Your task to perform on an android device: uninstall "Cash App" Image 0: 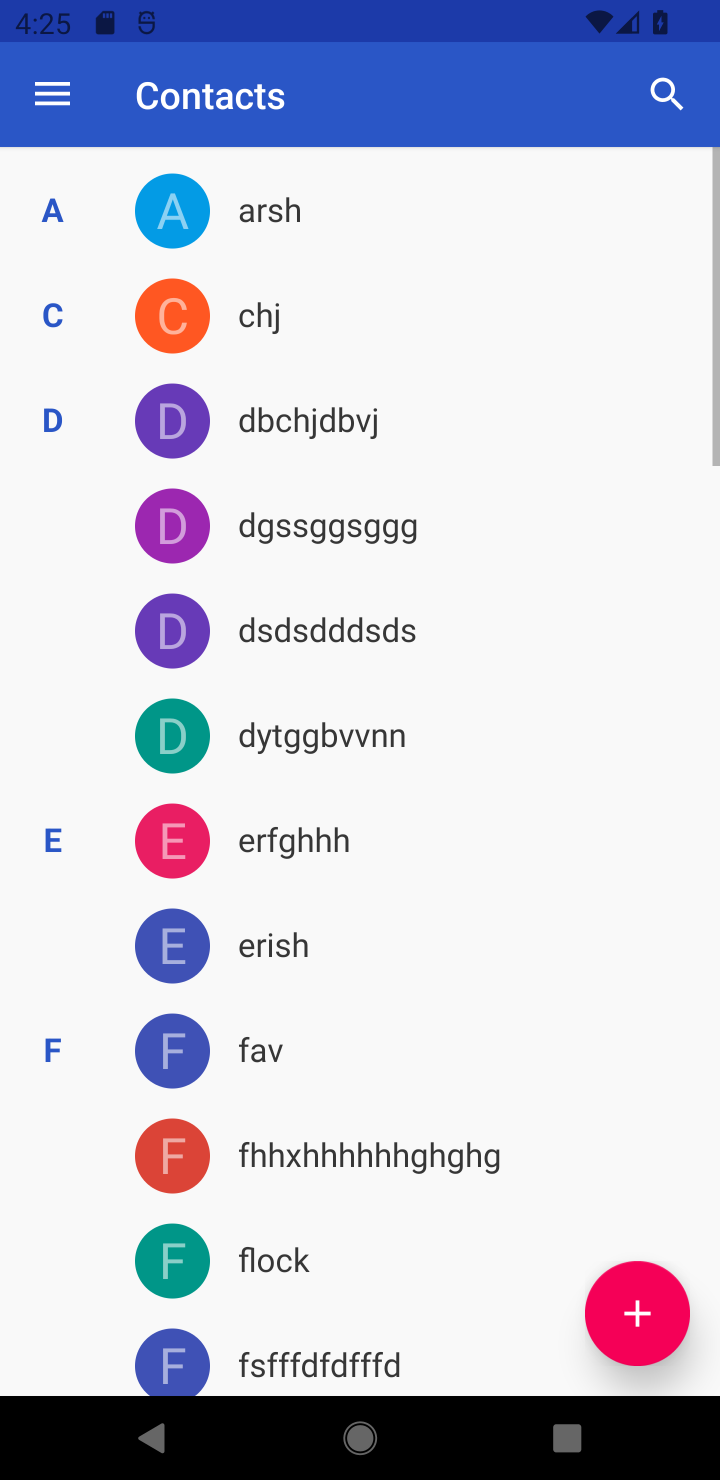
Step 0: press home button
Your task to perform on an android device: uninstall "Cash App" Image 1: 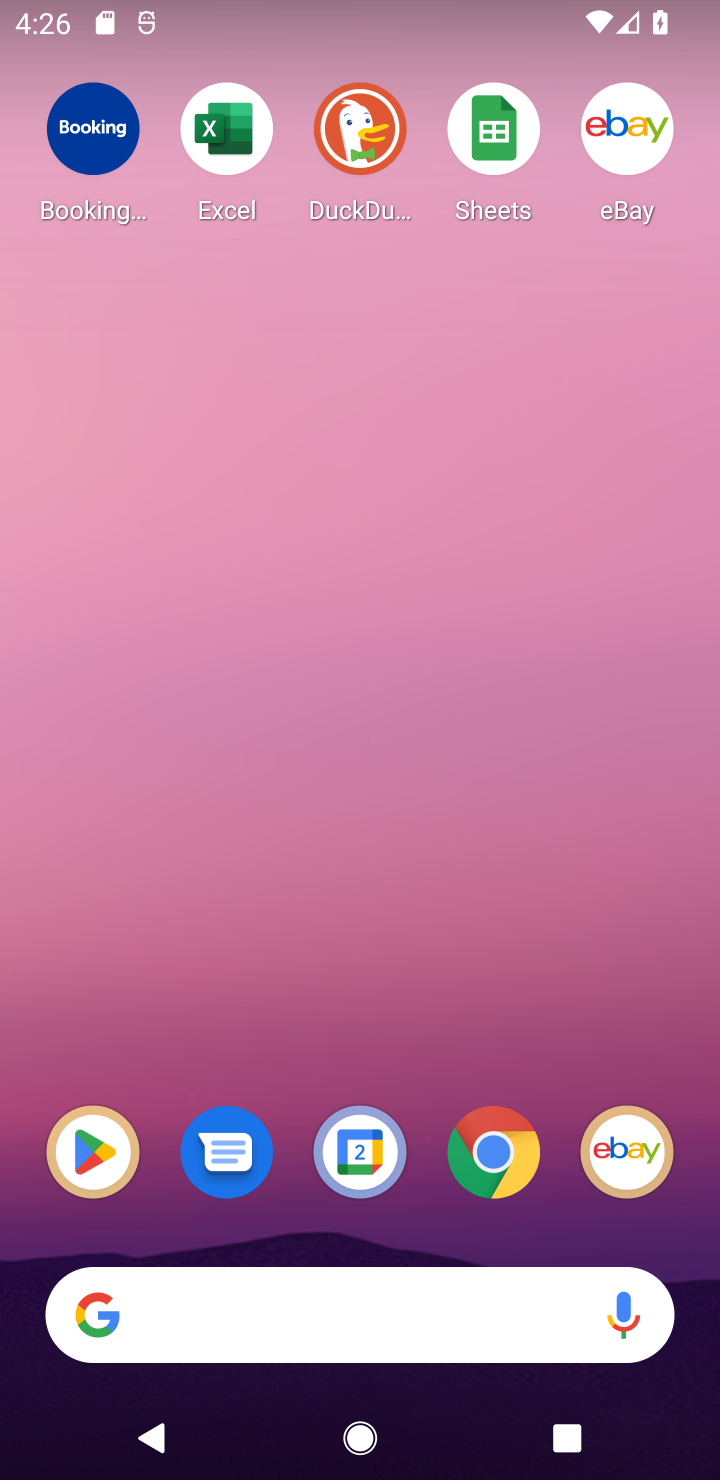
Step 1: click (93, 1153)
Your task to perform on an android device: uninstall "Cash App" Image 2: 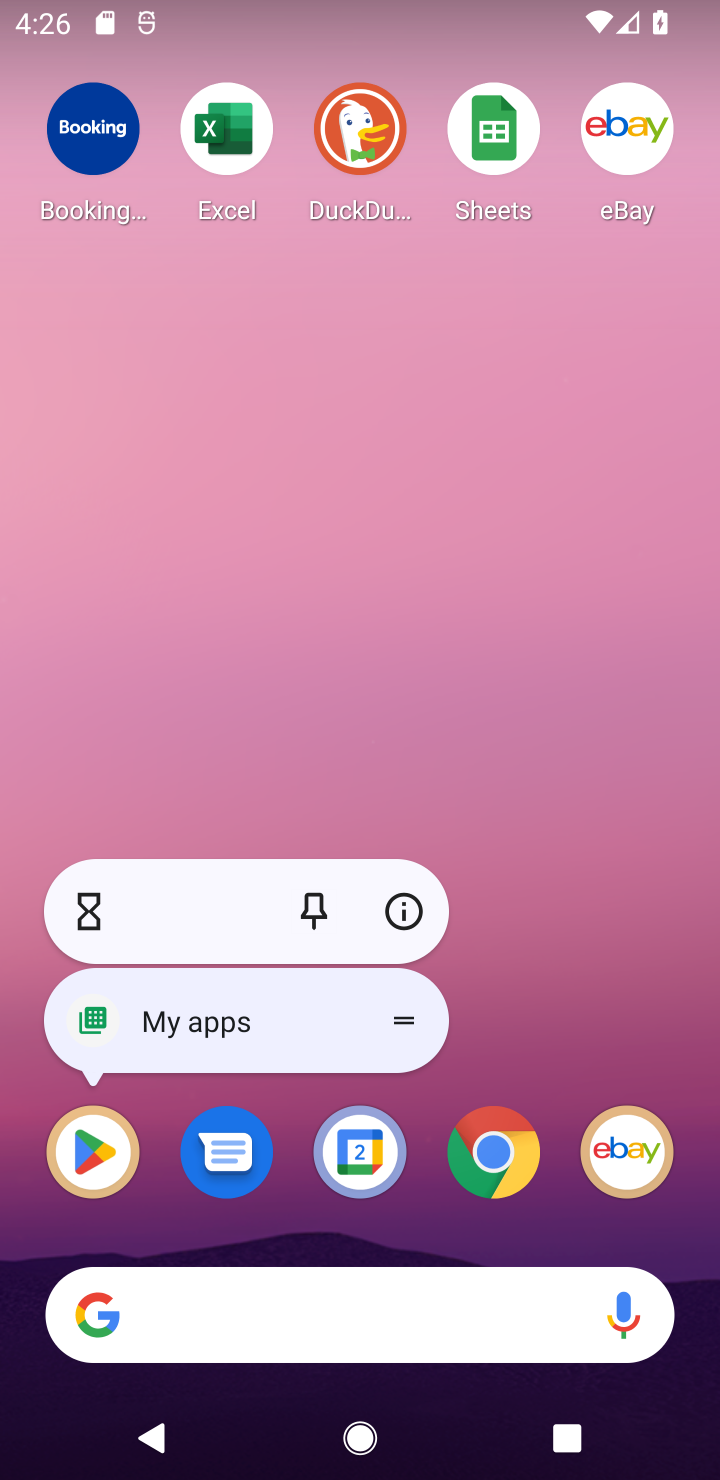
Step 2: click (94, 1153)
Your task to perform on an android device: uninstall "Cash App" Image 3: 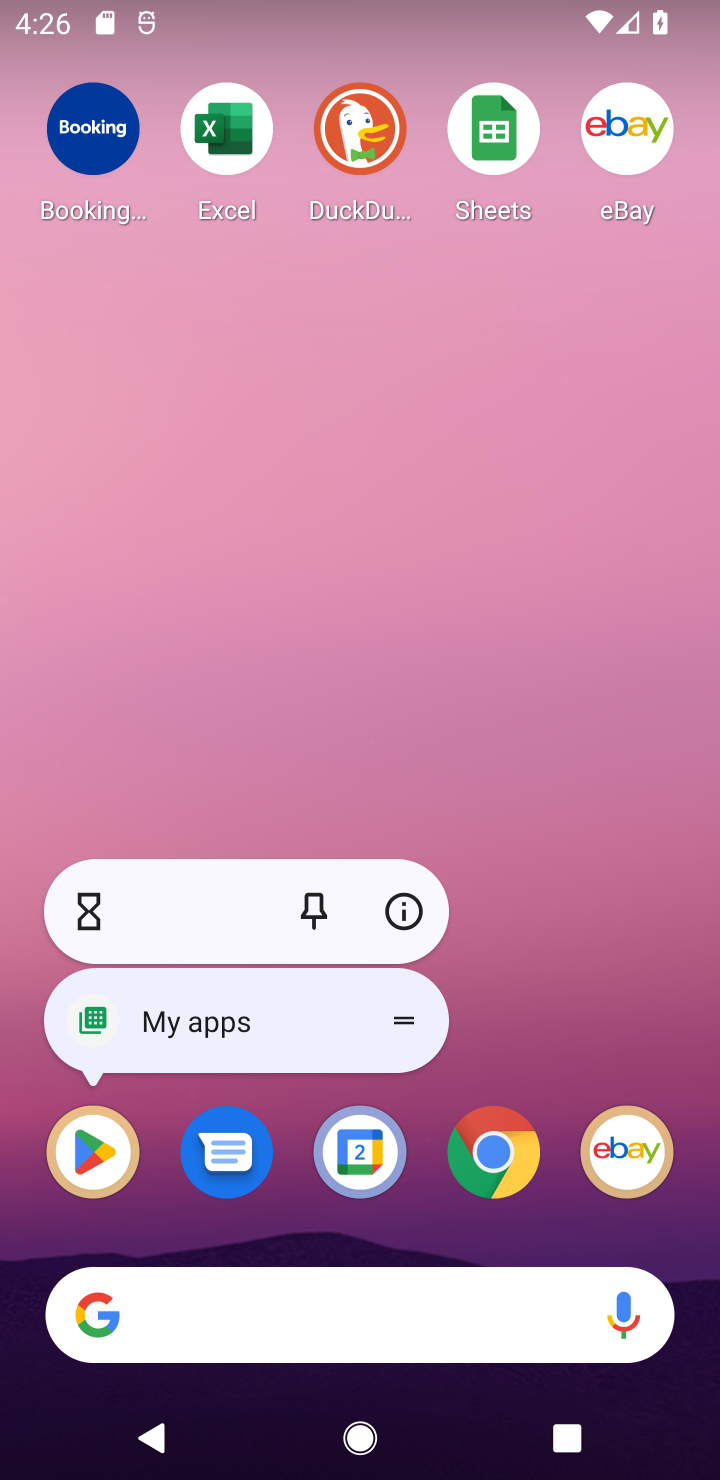
Step 3: click (94, 1153)
Your task to perform on an android device: uninstall "Cash App" Image 4: 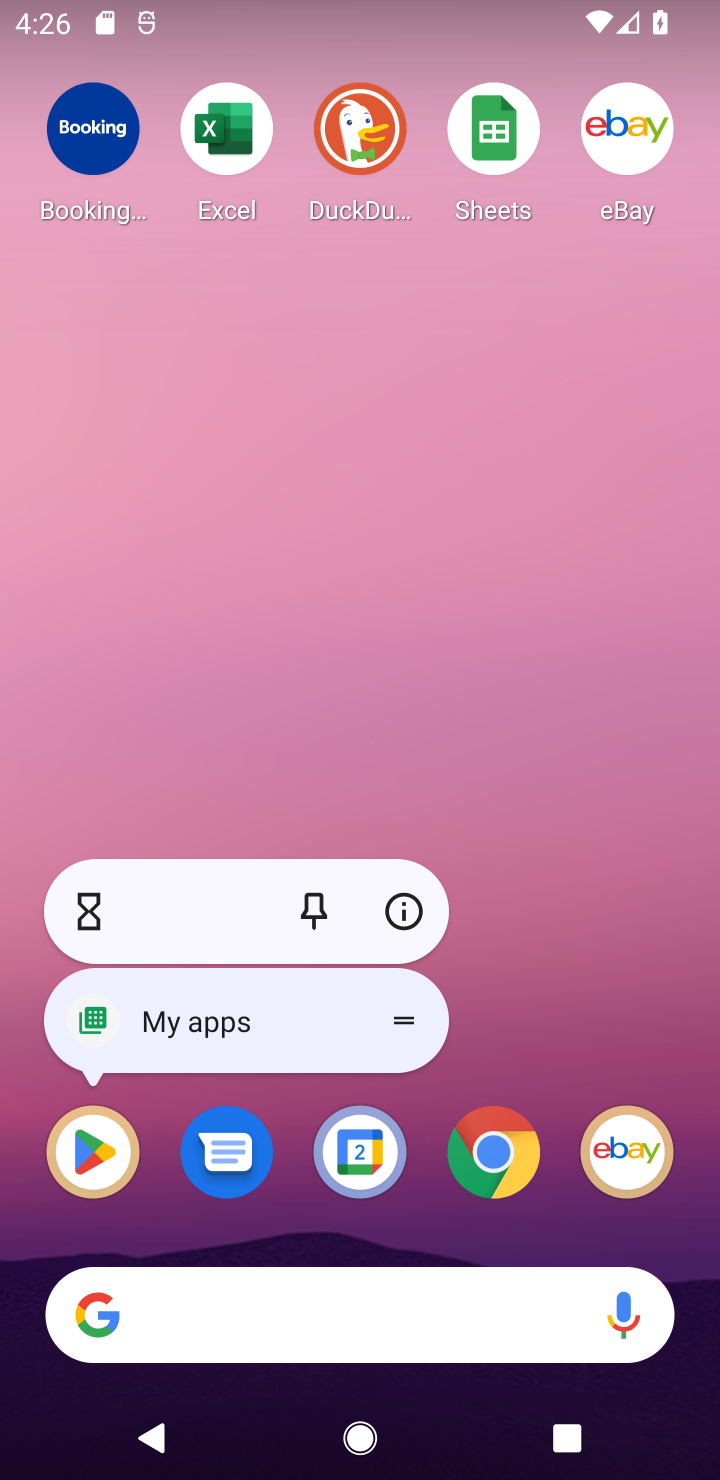
Step 4: click (96, 1154)
Your task to perform on an android device: uninstall "Cash App" Image 5: 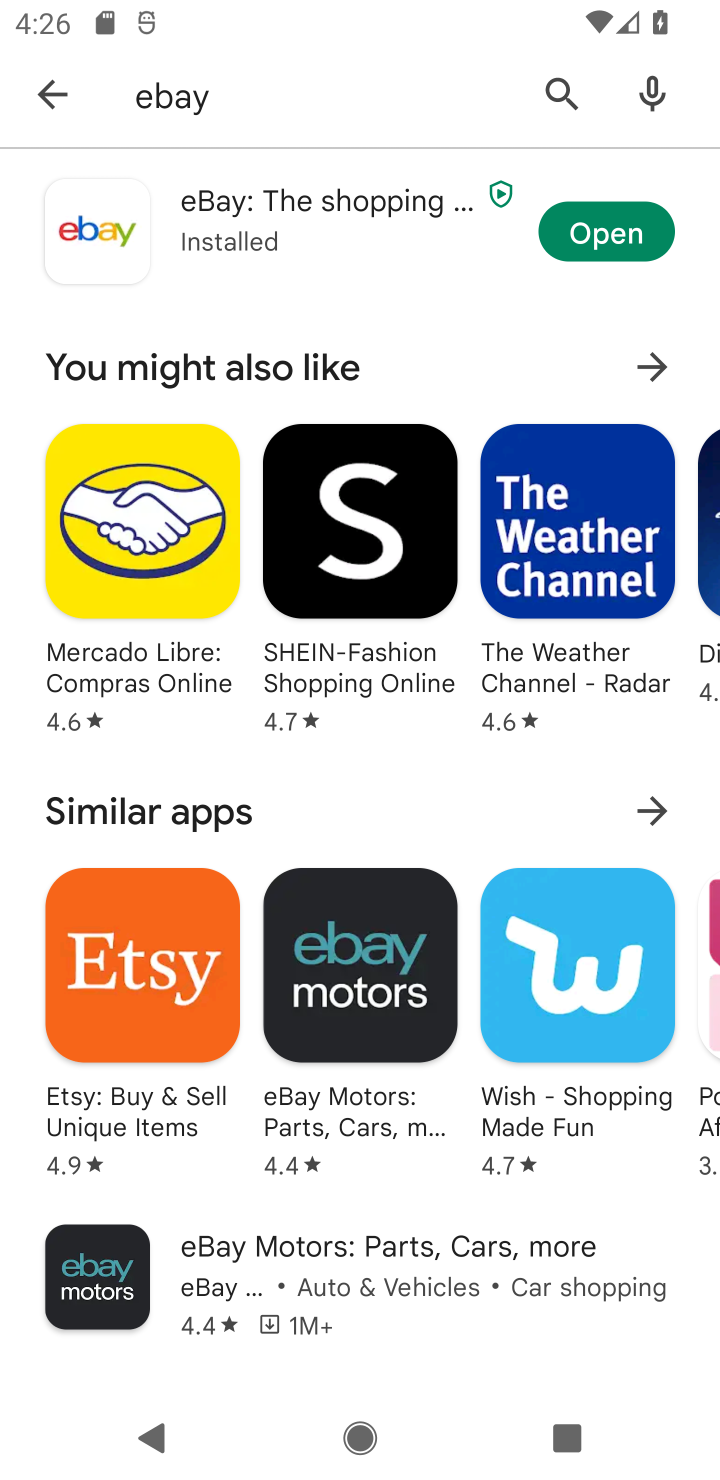
Step 5: click (28, 70)
Your task to perform on an android device: uninstall "Cash App" Image 6: 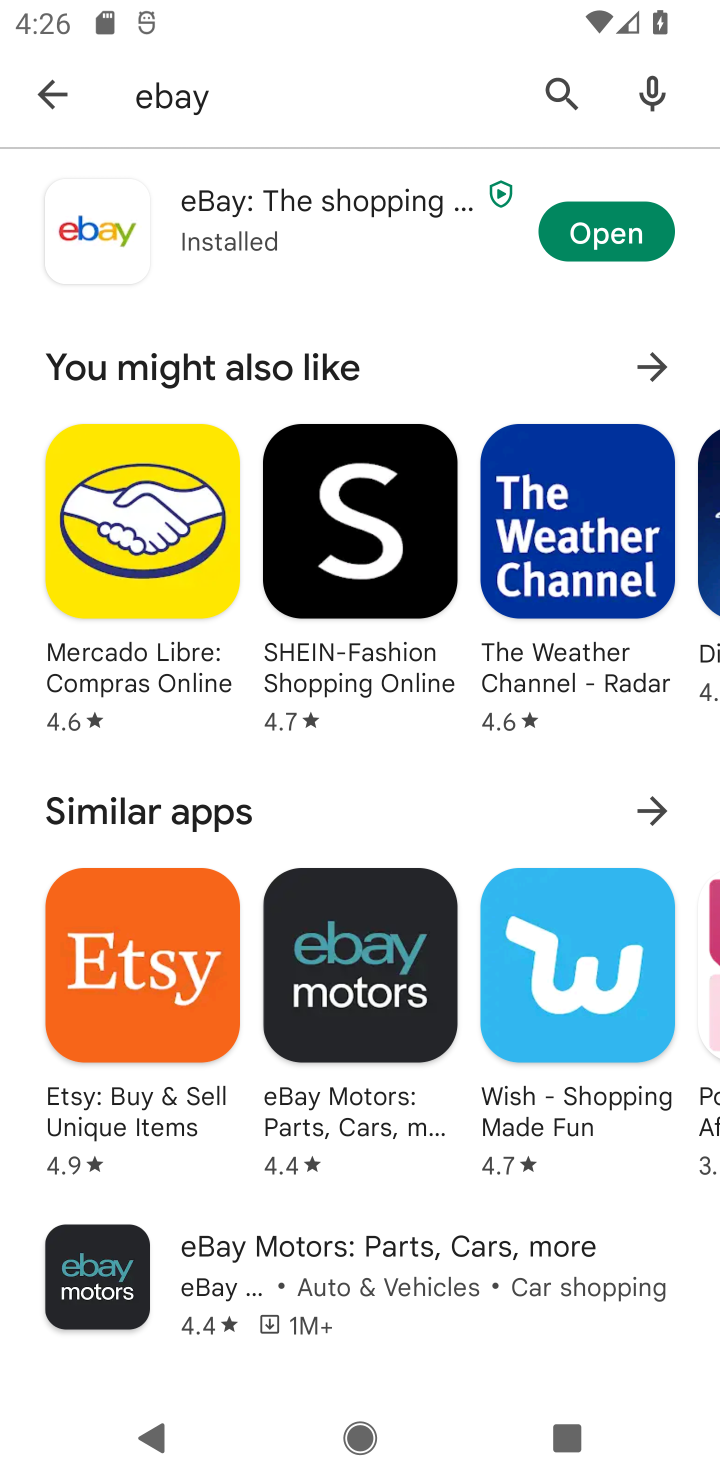
Step 6: click (37, 93)
Your task to perform on an android device: uninstall "Cash App" Image 7: 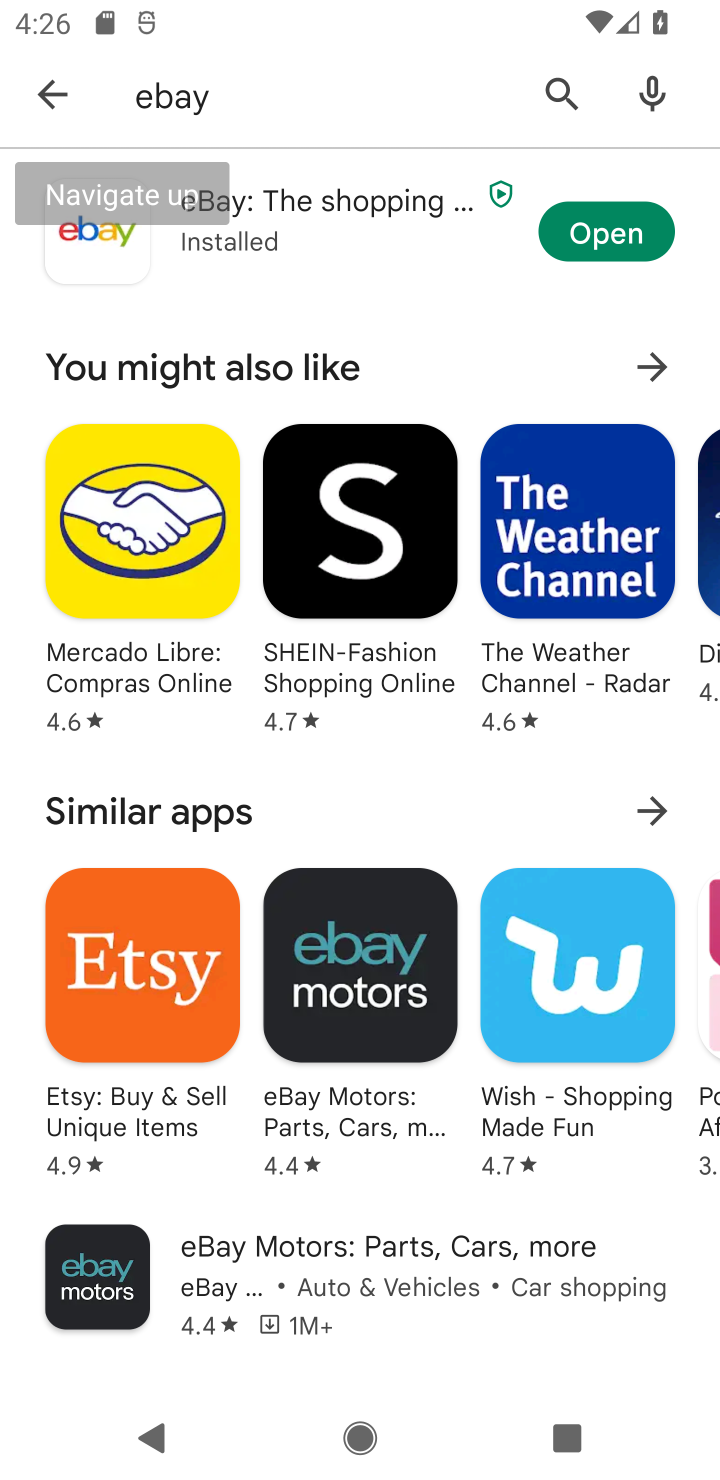
Step 7: click (37, 93)
Your task to perform on an android device: uninstall "Cash App" Image 8: 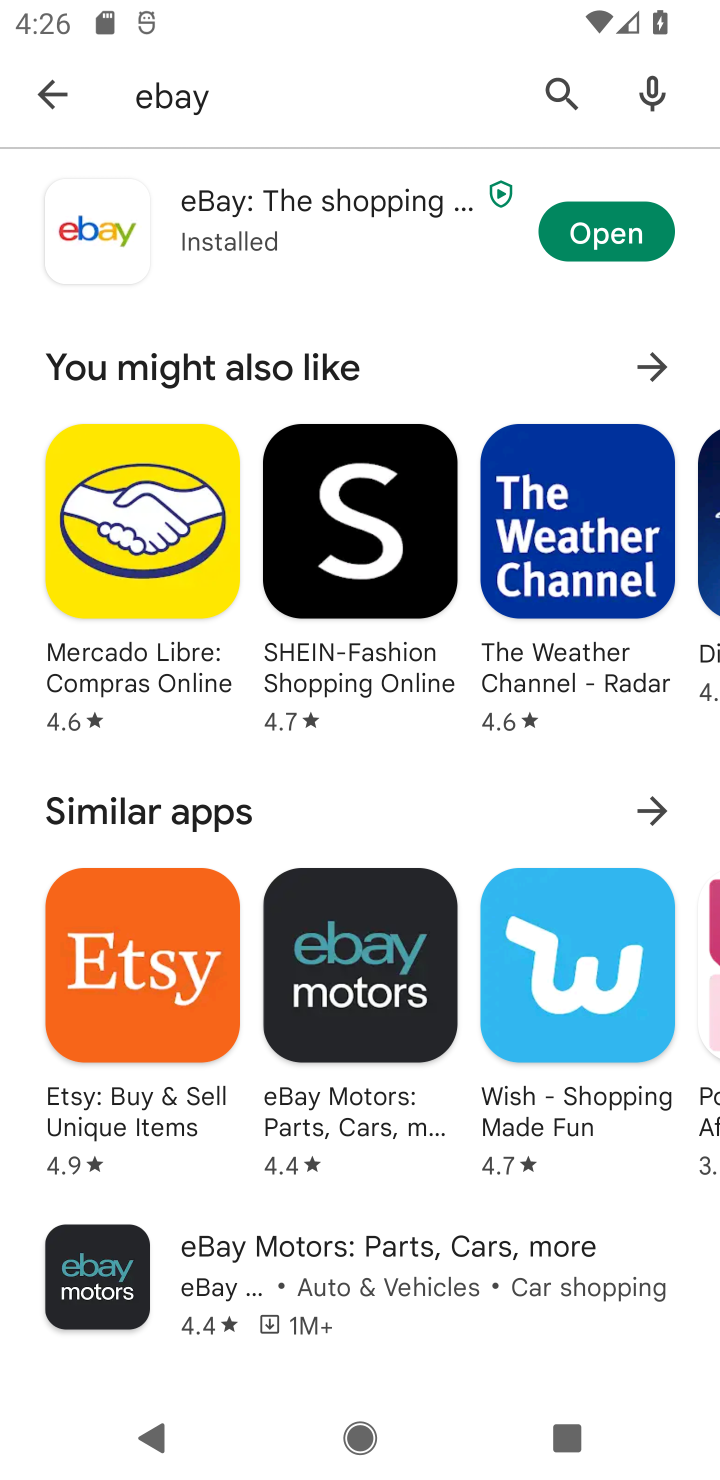
Step 8: click (37, 93)
Your task to perform on an android device: uninstall "Cash App" Image 9: 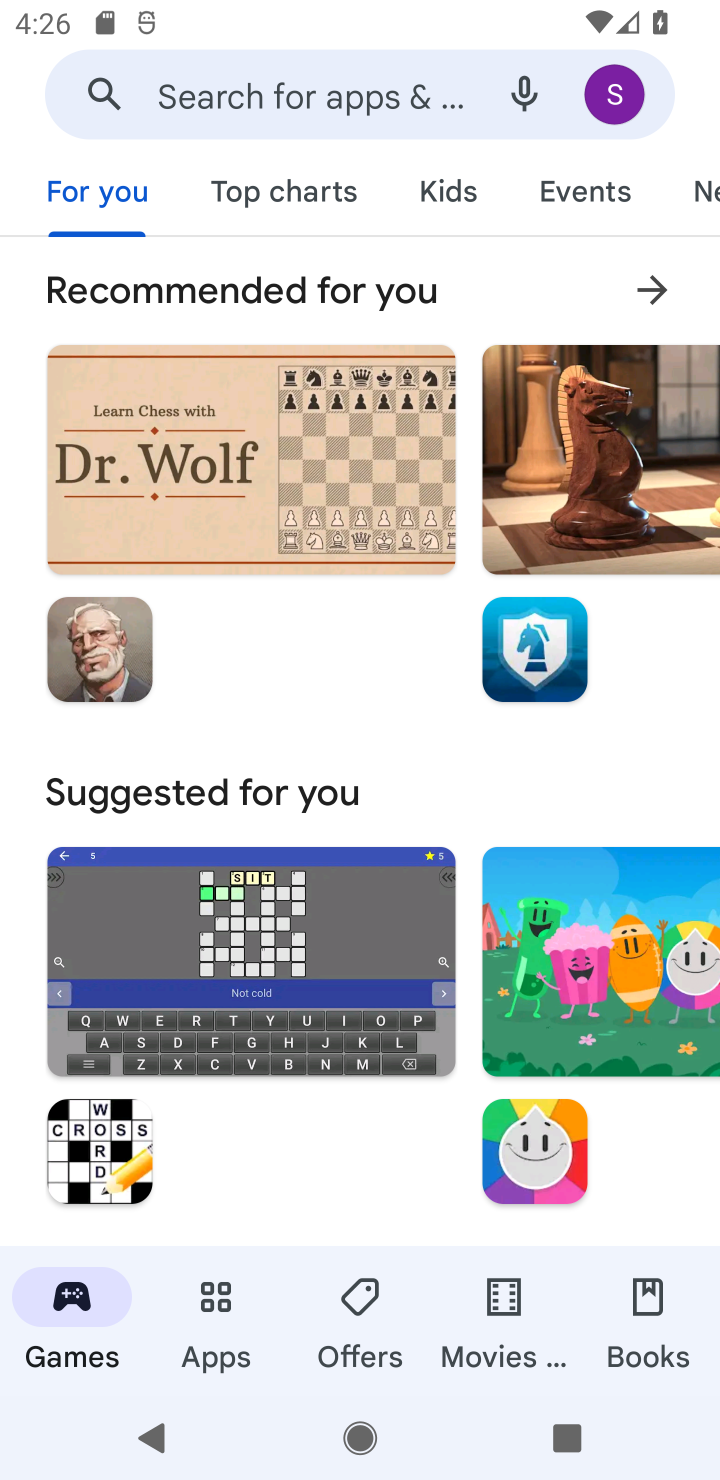
Step 9: click (183, 102)
Your task to perform on an android device: uninstall "Cash App" Image 10: 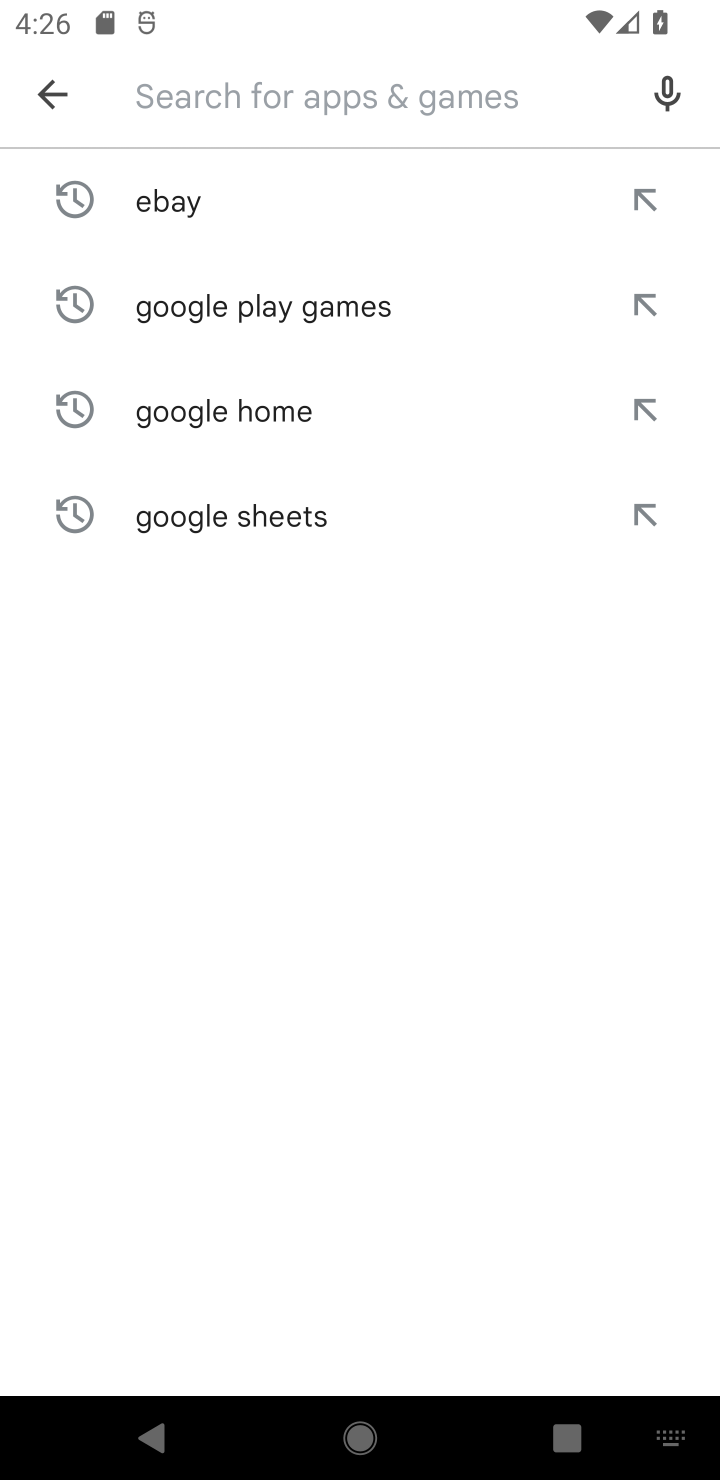
Step 10: type "Cash App"
Your task to perform on an android device: uninstall "Cash App" Image 11: 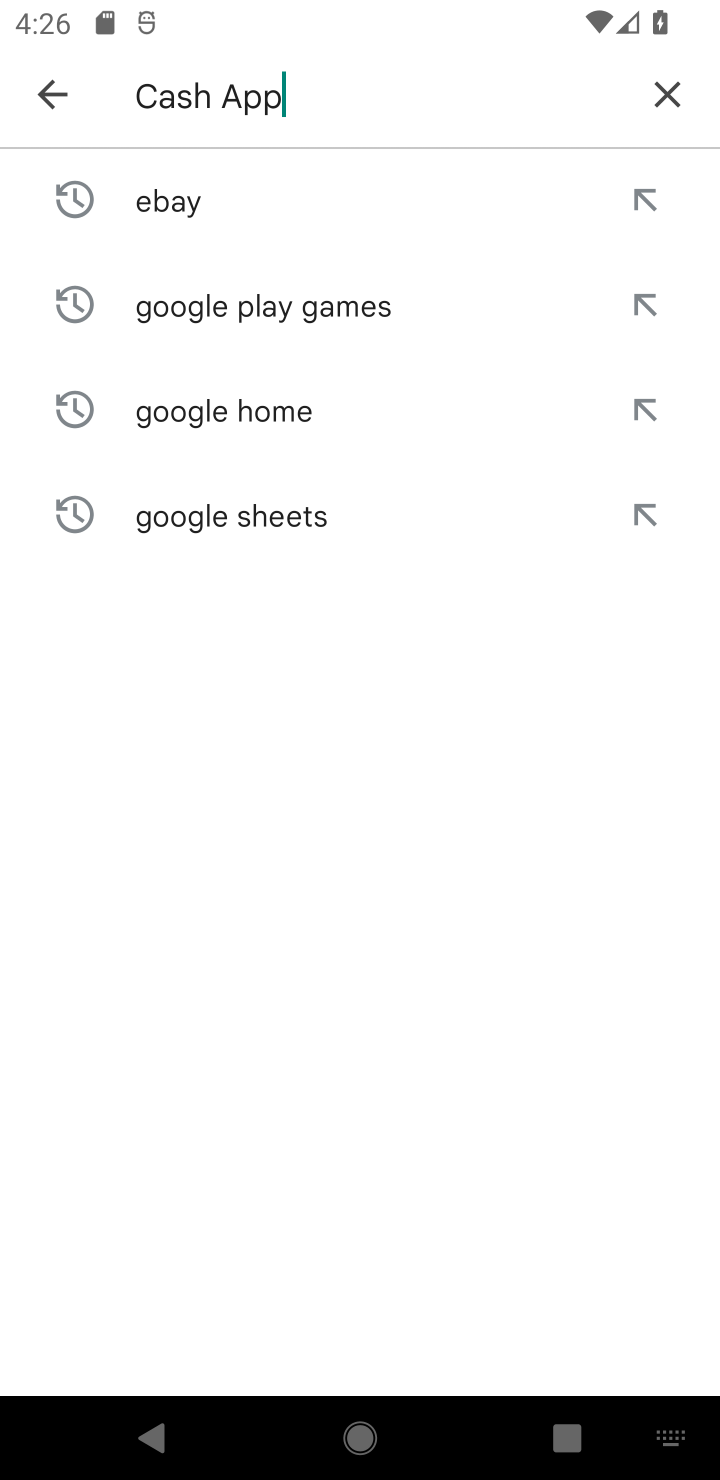
Step 11: type ""
Your task to perform on an android device: uninstall "Cash App" Image 12: 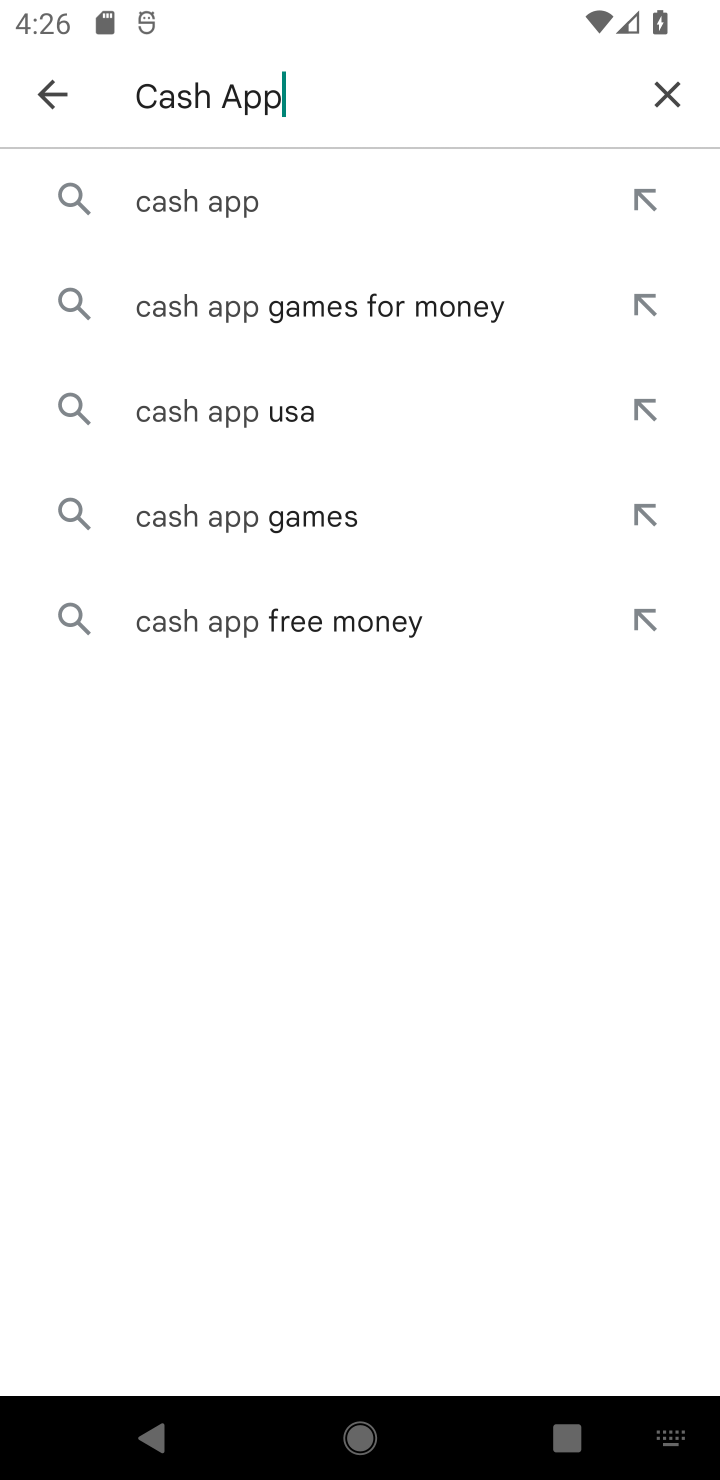
Step 12: click (112, 191)
Your task to perform on an android device: uninstall "Cash App" Image 13: 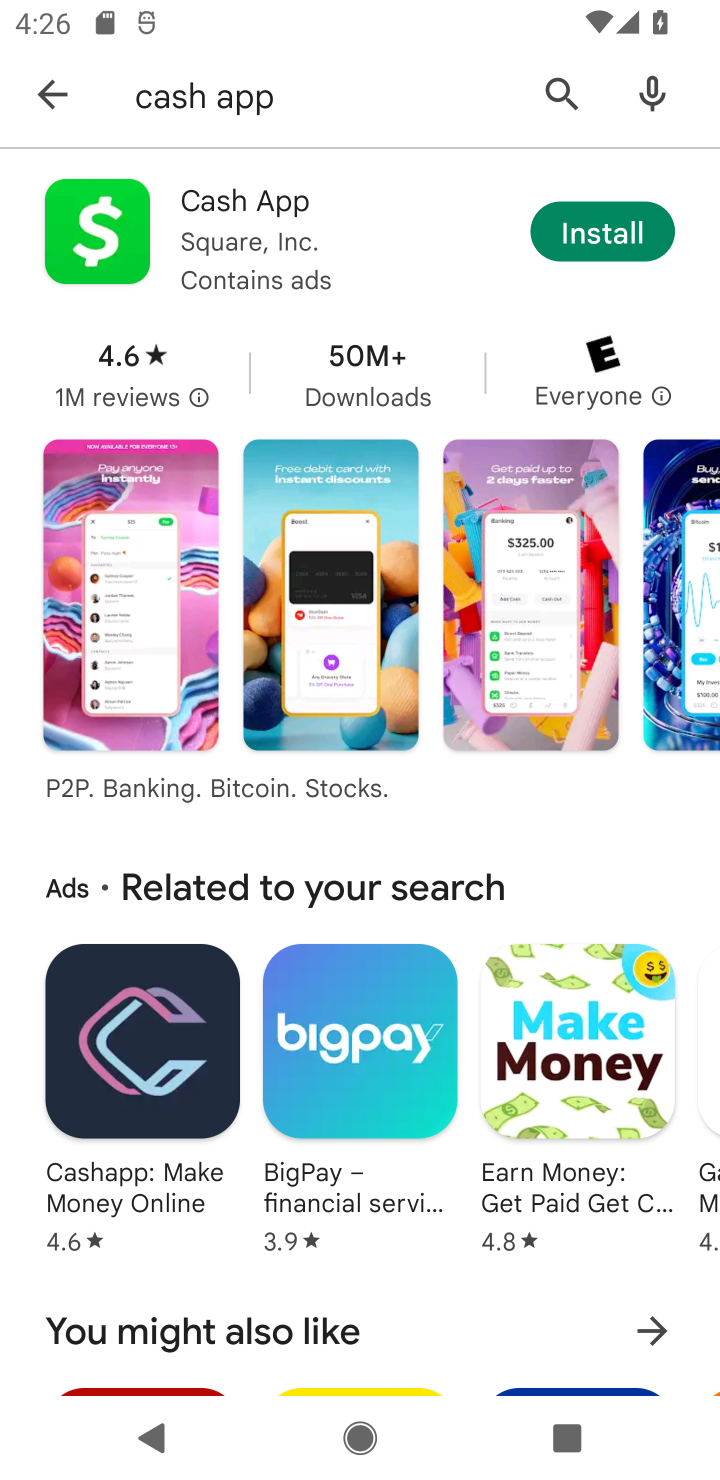
Step 13: task complete